Your task to perform on an android device: open app "Pandora - Music & Podcasts" (install if not already installed) and go to login screen Image 0: 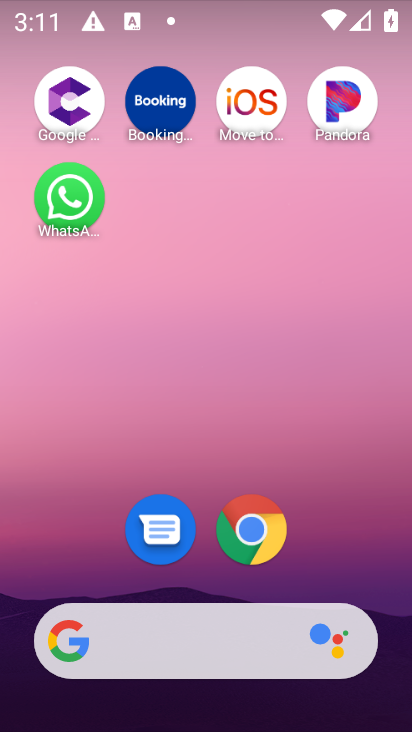
Step 0: drag from (227, 404) to (235, 7)
Your task to perform on an android device: open app "Pandora - Music & Podcasts" (install if not already installed) and go to login screen Image 1: 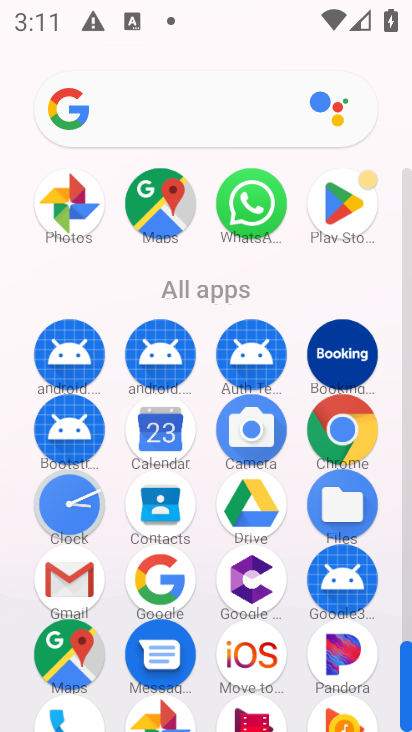
Step 1: click (349, 202)
Your task to perform on an android device: open app "Pandora - Music & Podcasts" (install if not already installed) and go to login screen Image 2: 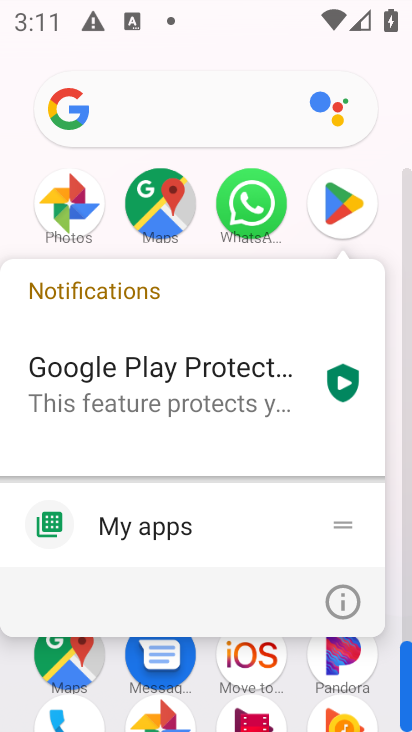
Step 2: click (349, 203)
Your task to perform on an android device: open app "Pandora - Music & Podcasts" (install if not already installed) and go to login screen Image 3: 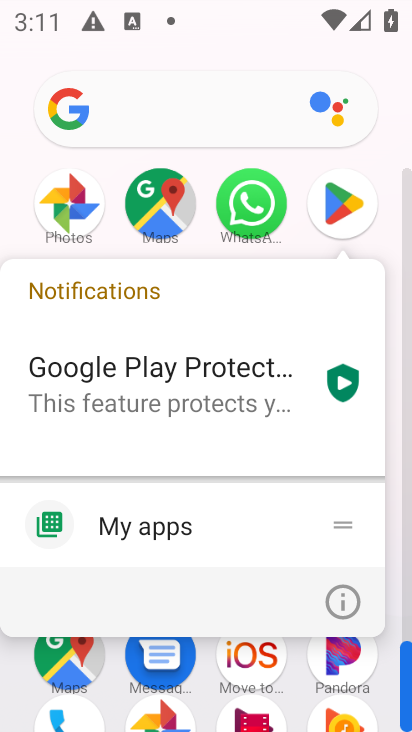
Step 3: click (335, 213)
Your task to perform on an android device: open app "Pandora - Music & Podcasts" (install if not already installed) and go to login screen Image 4: 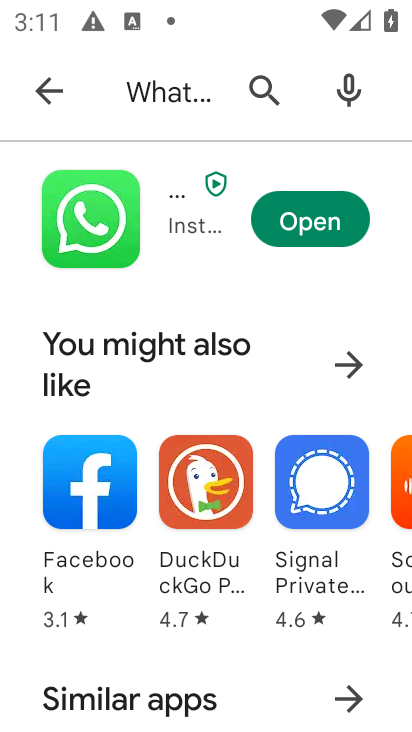
Step 4: press back button
Your task to perform on an android device: open app "Pandora - Music & Podcasts" (install if not already installed) and go to login screen Image 5: 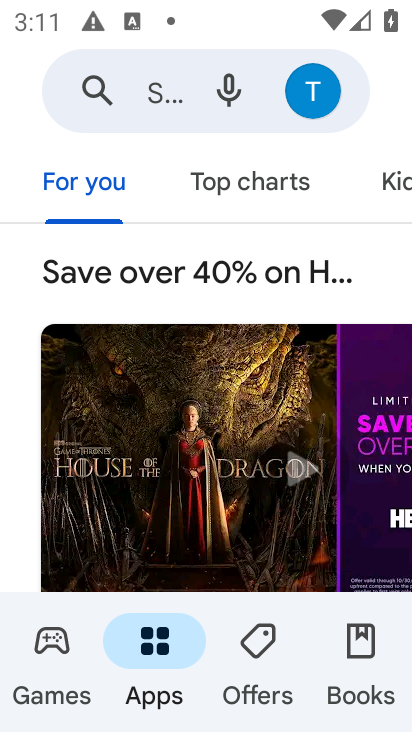
Step 5: click (170, 91)
Your task to perform on an android device: open app "Pandora - Music & Podcasts" (install if not already installed) and go to login screen Image 6: 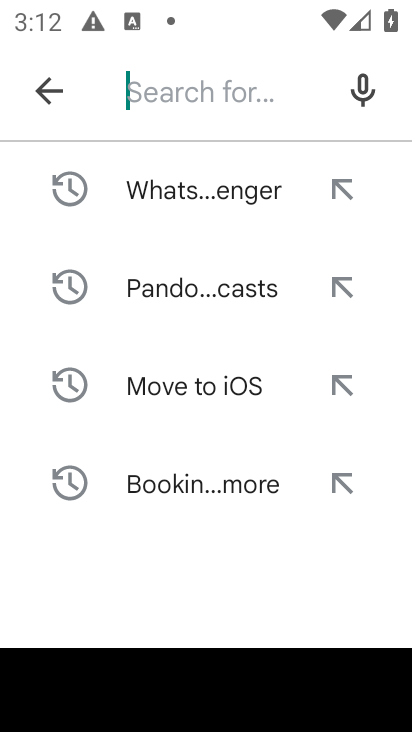
Step 6: type "Pandora - Music & Podcast"
Your task to perform on an android device: open app "Pandora - Music & Podcasts" (install if not already installed) and go to login screen Image 7: 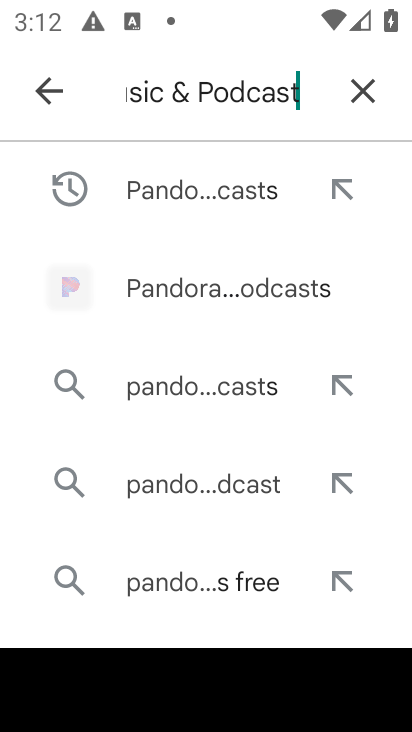
Step 7: press enter
Your task to perform on an android device: open app "Pandora - Music & Podcasts" (install if not already installed) and go to login screen Image 8: 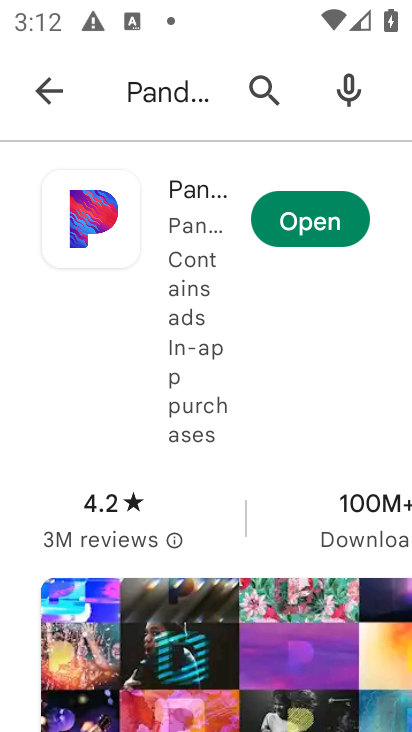
Step 8: click (300, 248)
Your task to perform on an android device: open app "Pandora - Music & Podcasts" (install if not already installed) and go to login screen Image 9: 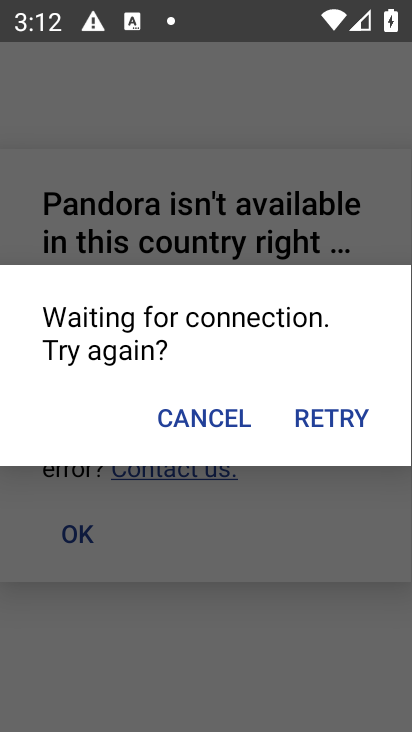
Step 9: click (343, 433)
Your task to perform on an android device: open app "Pandora - Music & Podcasts" (install if not already installed) and go to login screen Image 10: 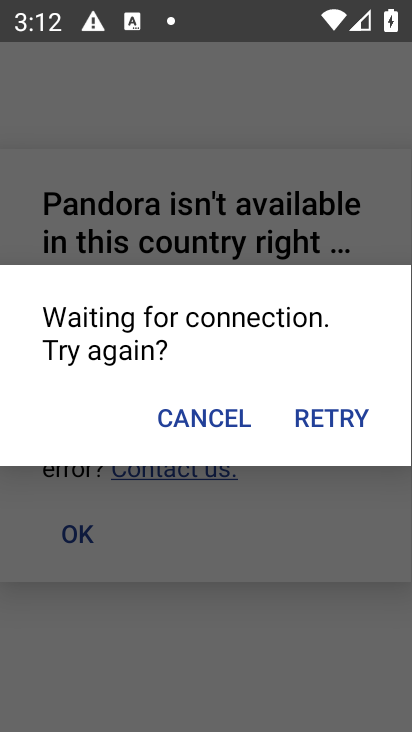
Step 10: click (339, 412)
Your task to perform on an android device: open app "Pandora - Music & Podcasts" (install if not already installed) and go to login screen Image 11: 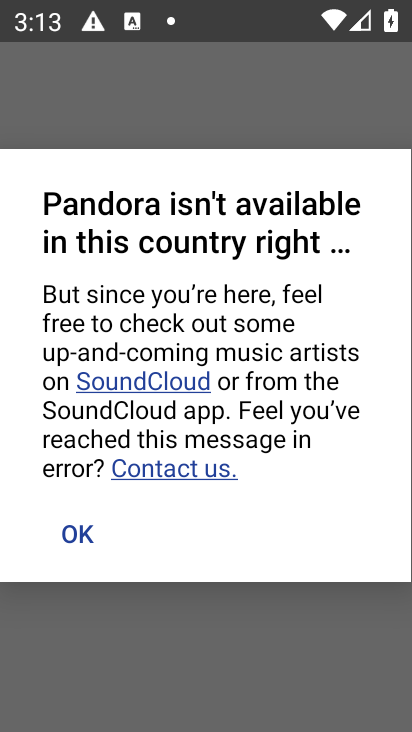
Step 11: click (97, 533)
Your task to perform on an android device: open app "Pandora - Music & Podcasts" (install if not already installed) and go to login screen Image 12: 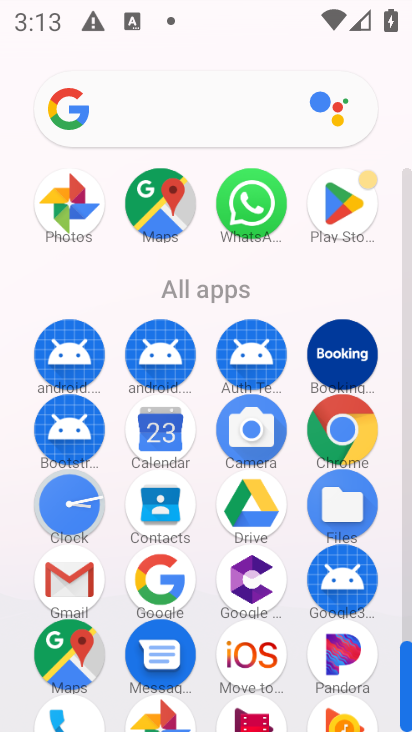
Step 12: click (345, 206)
Your task to perform on an android device: open app "Pandora - Music & Podcasts" (install if not already installed) and go to login screen Image 13: 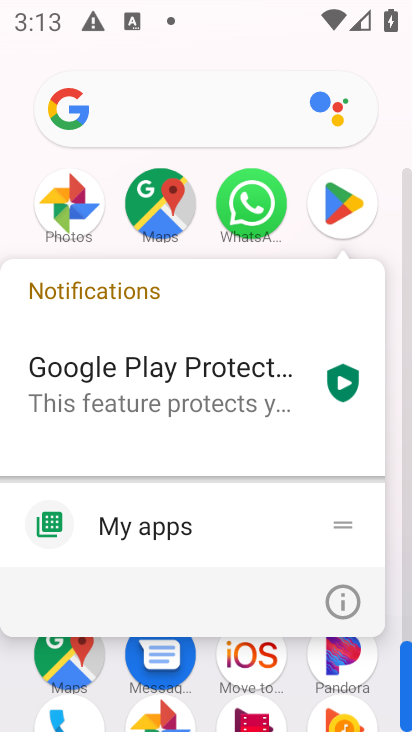
Step 13: click (346, 206)
Your task to perform on an android device: open app "Pandora - Music & Podcasts" (install if not already installed) and go to login screen Image 14: 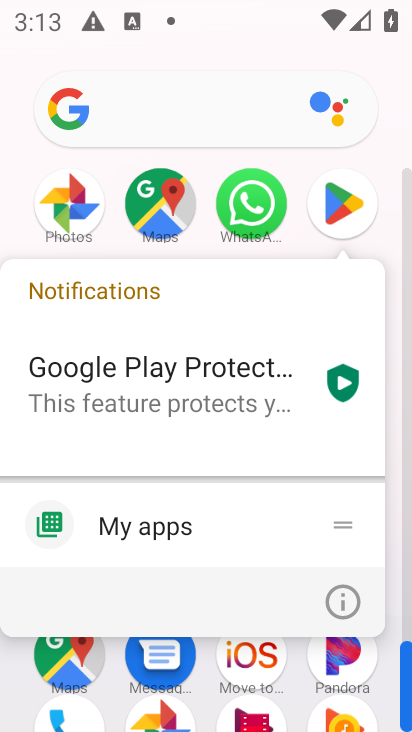
Step 14: click (347, 206)
Your task to perform on an android device: open app "Pandora - Music & Podcasts" (install if not already installed) and go to login screen Image 15: 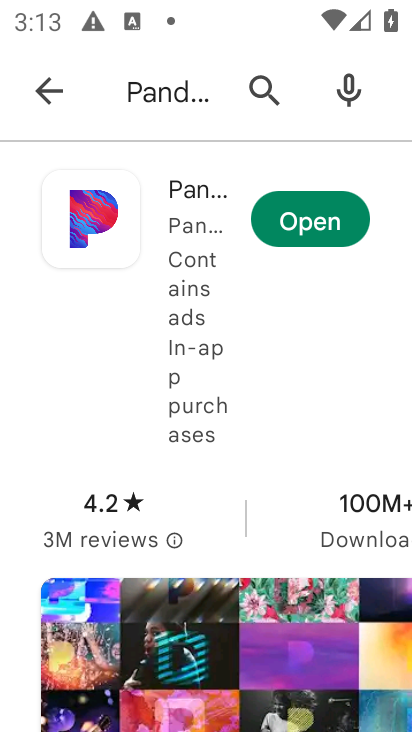
Step 15: press back button
Your task to perform on an android device: open app "Pandora - Music & Podcasts" (install if not already installed) and go to login screen Image 16: 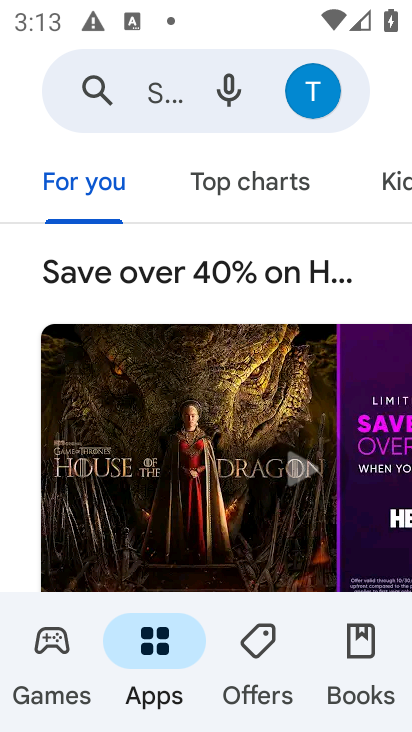
Step 16: click (163, 101)
Your task to perform on an android device: open app "Pandora - Music & Podcasts" (install if not already installed) and go to login screen Image 17: 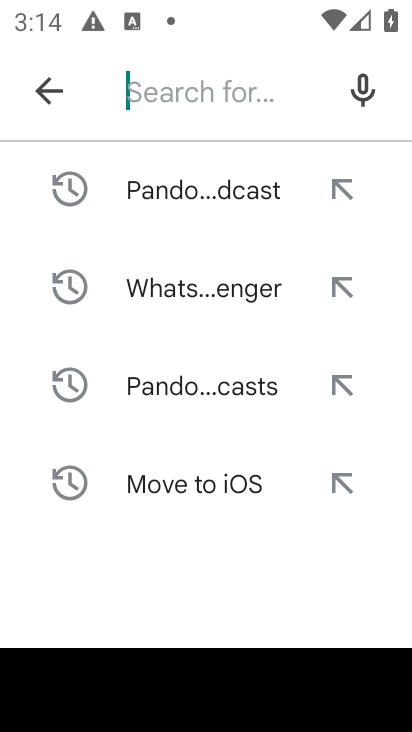
Step 17: type "Pandora - Music & Podcasts"
Your task to perform on an android device: open app "Pandora - Music & Podcasts" (install if not already installed) and go to login screen Image 18: 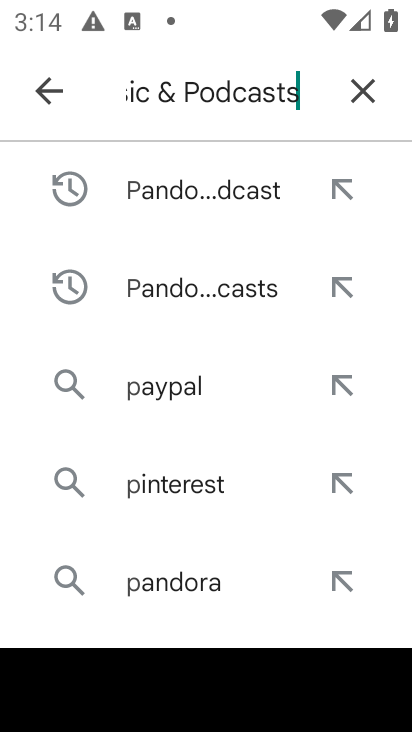
Step 18: press enter
Your task to perform on an android device: open app "Pandora - Music & Podcasts" (install if not already installed) and go to login screen Image 19: 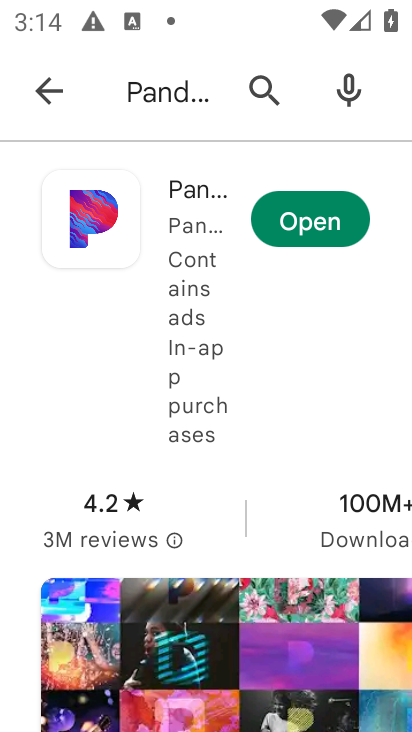
Step 19: click (308, 223)
Your task to perform on an android device: open app "Pandora - Music & Podcasts" (install if not already installed) and go to login screen Image 20: 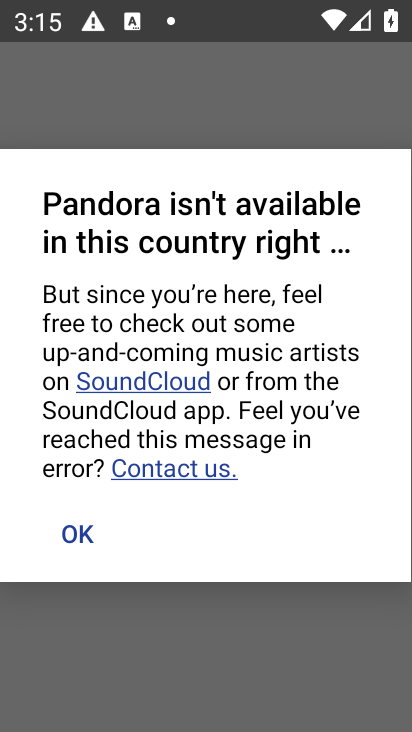
Step 20: click (65, 537)
Your task to perform on an android device: open app "Pandora - Music & Podcasts" (install if not already installed) and go to login screen Image 21: 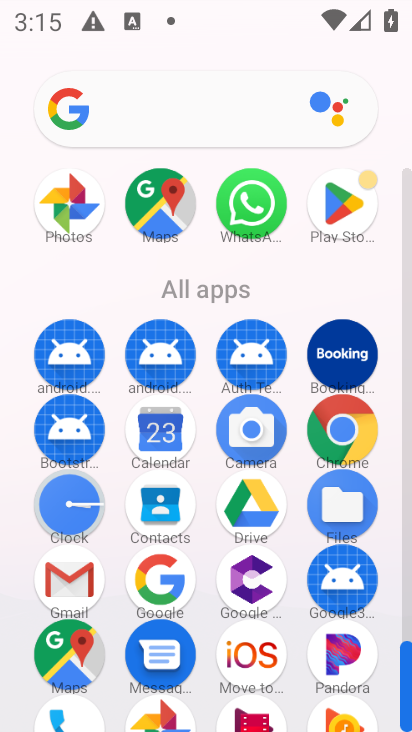
Step 21: click (354, 215)
Your task to perform on an android device: open app "Pandora - Music & Podcasts" (install if not already installed) and go to login screen Image 22: 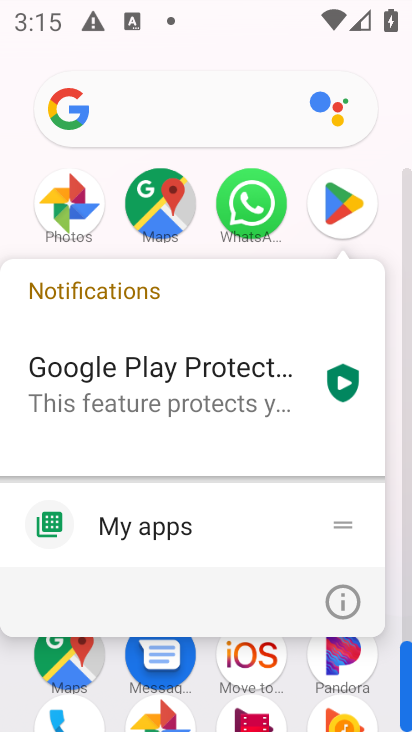
Step 22: click (348, 213)
Your task to perform on an android device: open app "Pandora - Music & Podcasts" (install if not already installed) and go to login screen Image 23: 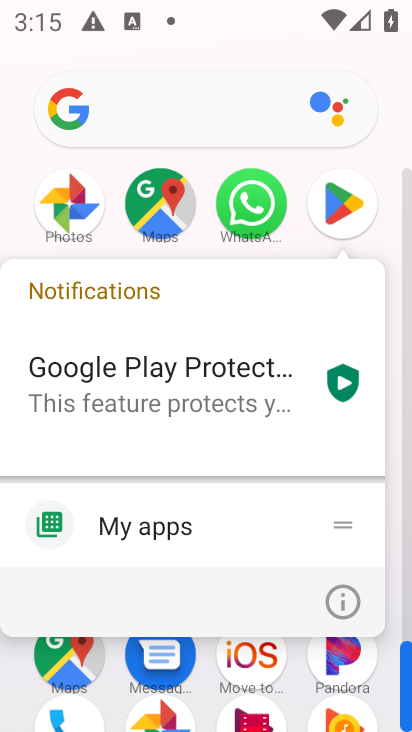
Step 23: click (346, 212)
Your task to perform on an android device: open app "Pandora - Music & Podcasts" (install if not already installed) and go to login screen Image 24: 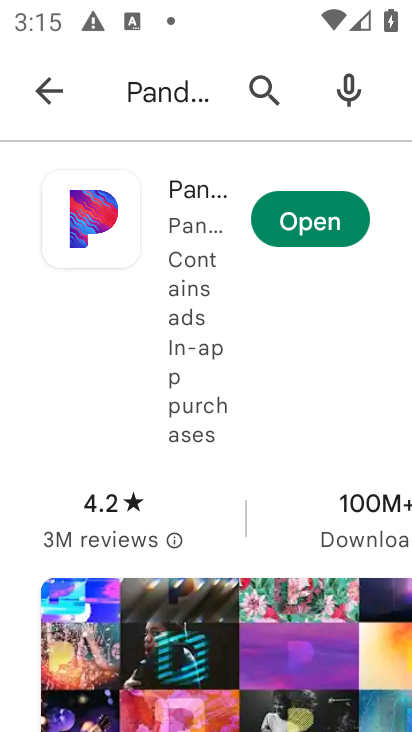
Step 24: press back button
Your task to perform on an android device: open app "Pandora - Music & Podcasts" (install if not already installed) and go to login screen Image 25: 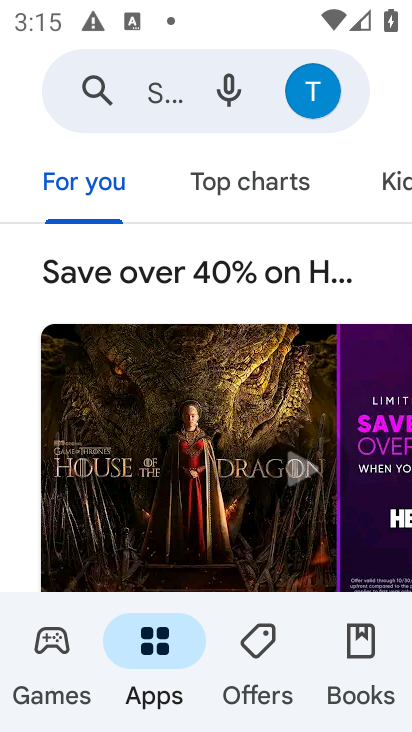
Step 25: click (171, 78)
Your task to perform on an android device: open app "Pandora - Music & Podcasts" (install if not already installed) and go to login screen Image 26: 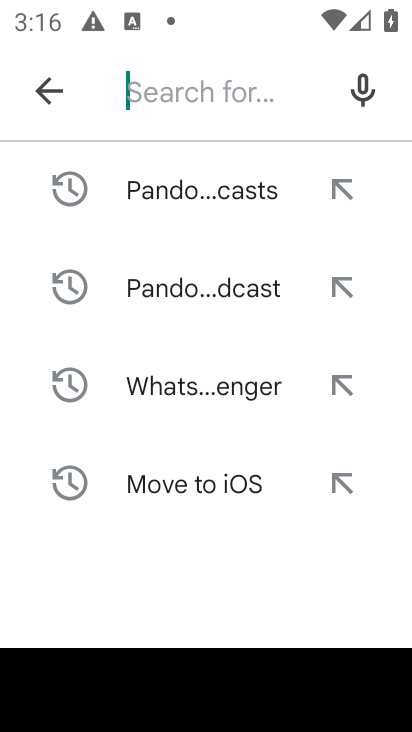
Step 26: click (186, 197)
Your task to perform on an android device: open app "Pandora - Music & Podcasts" (install if not already installed) and go to login screen Image 27: 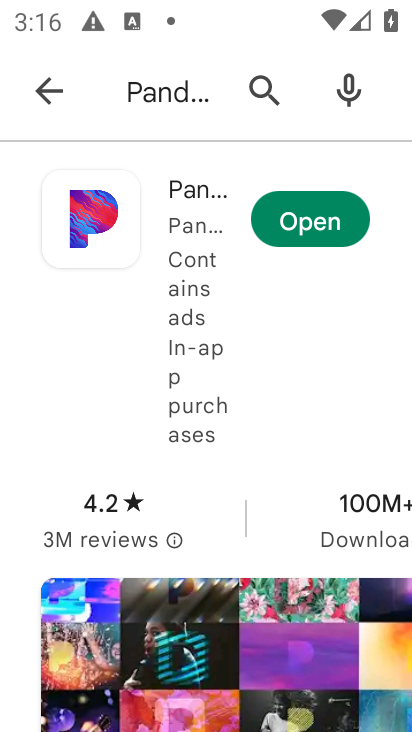
Step 27: task complete